Your task to perform on an android device: Open the Play Movies app and select the watchlist tab. Image 0: 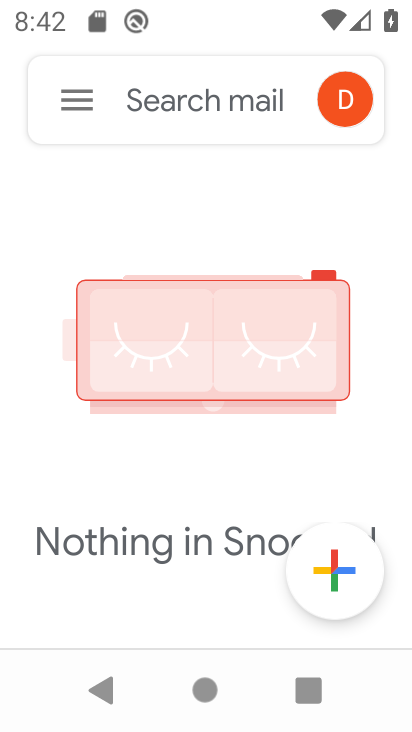
Step 0: press home button
Your task to perform on an android device: Open the Play Movies app and select the watchlist tab. Image 1: 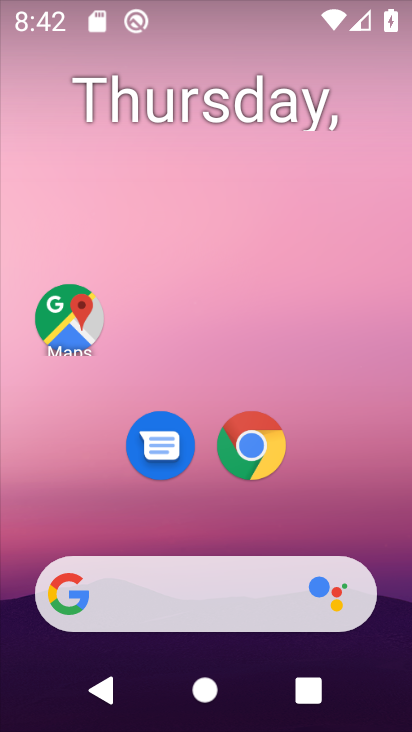
Step 1: drag from (314, 473) to (97, 74)
Your task to perform on an android device: Open the Play Movies app and select the watchlist tab. Image 2: 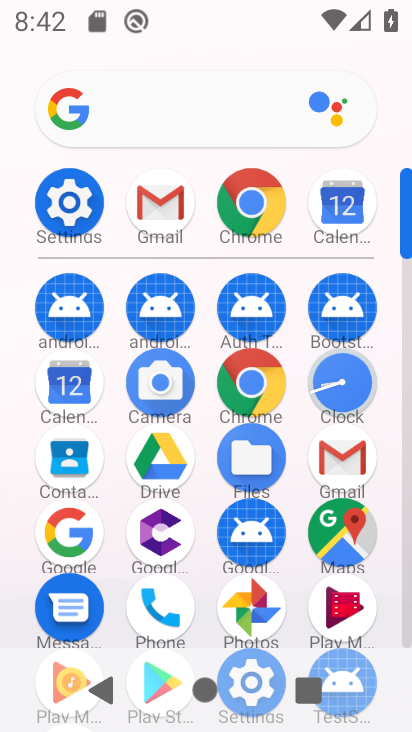
Step 2: drag from (303, 520) to (289, 279)
Your task to perform on an android device: Open the Play Movies app and select the watchlist tab. Image 3: 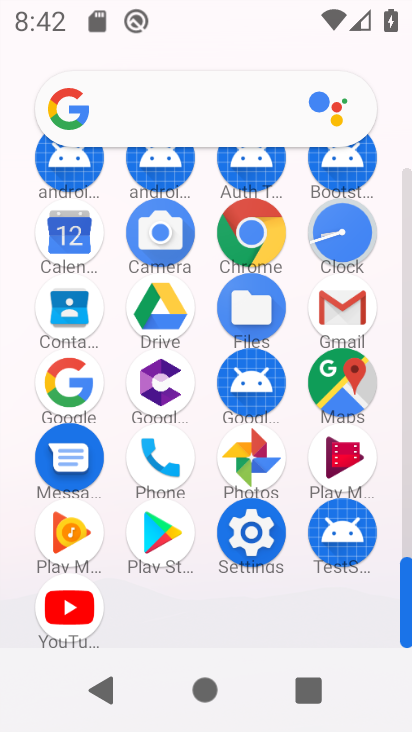
Step 3: click (332, 468)
Your task to perform on an android device: Open the Play Movies app and select the watchlist tab. Image 4: 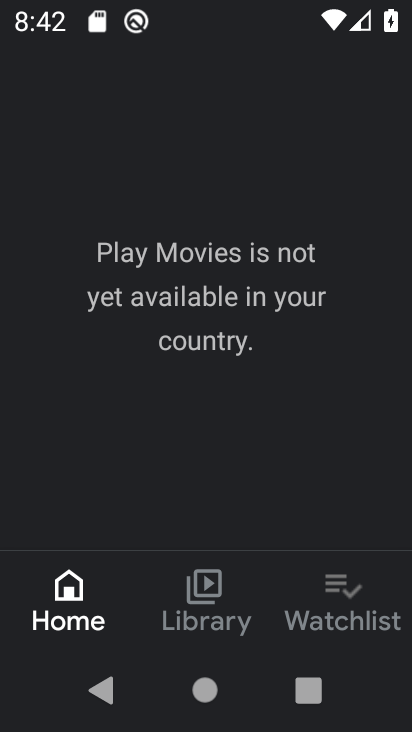
Step 4: click (336, 594)
Your task to perform on an android device: Open the Play Movies app and select the watchlist tab. Image 5: 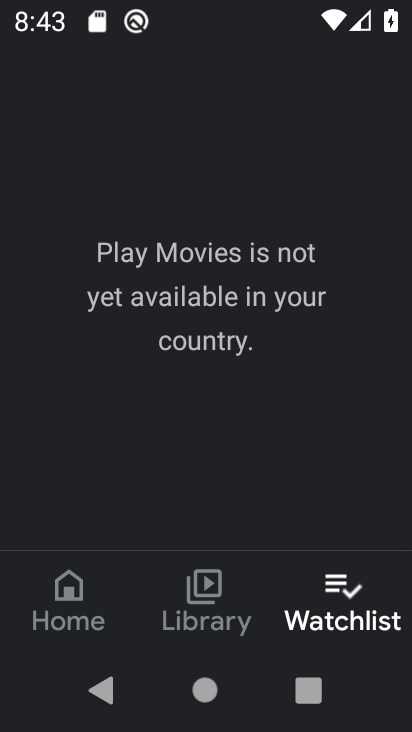
Step 5: task complete